Your task to perform on an android device: check google app version Image 0: 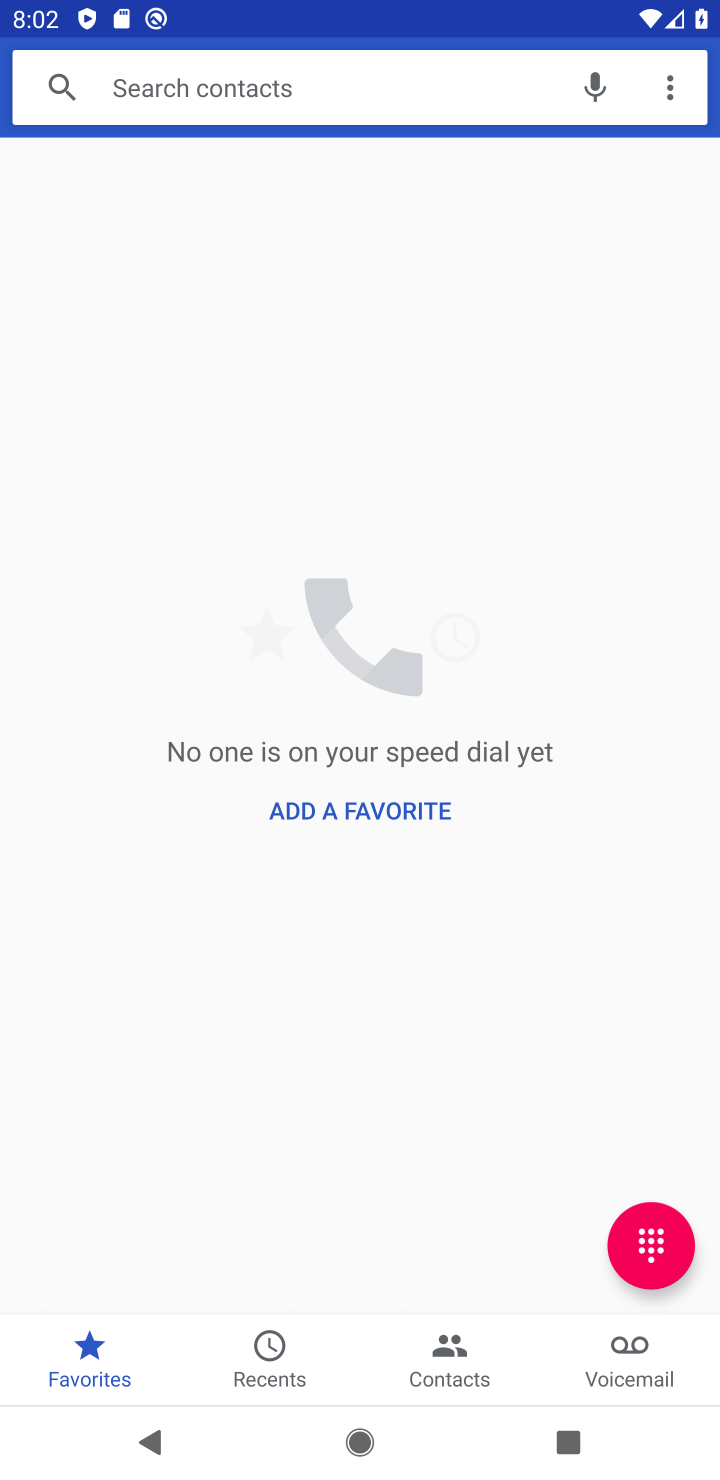
Step 0: press home button
Your task to perform on an android device: check google app version Image 1: 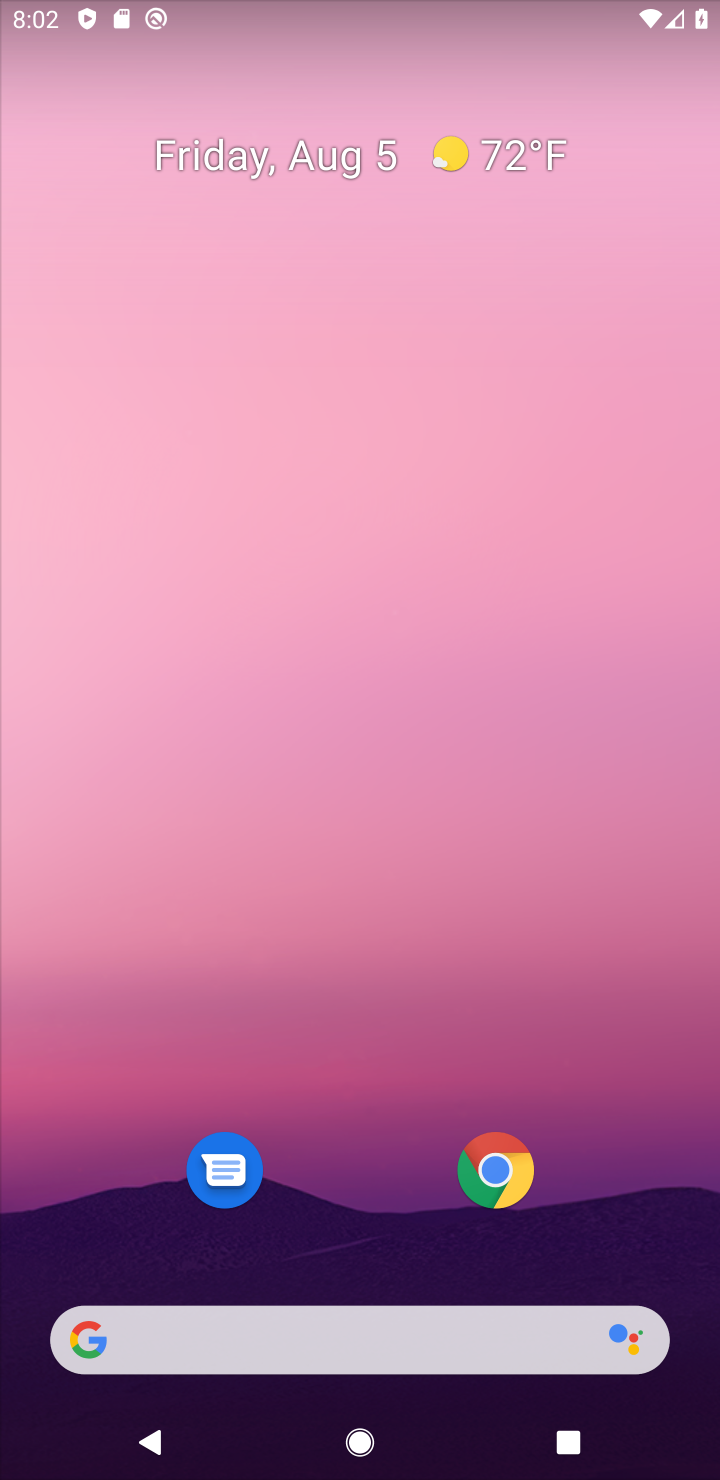
Step 1: click (501, 1170)
Your task to perform on an android device: check google app version Image 2: 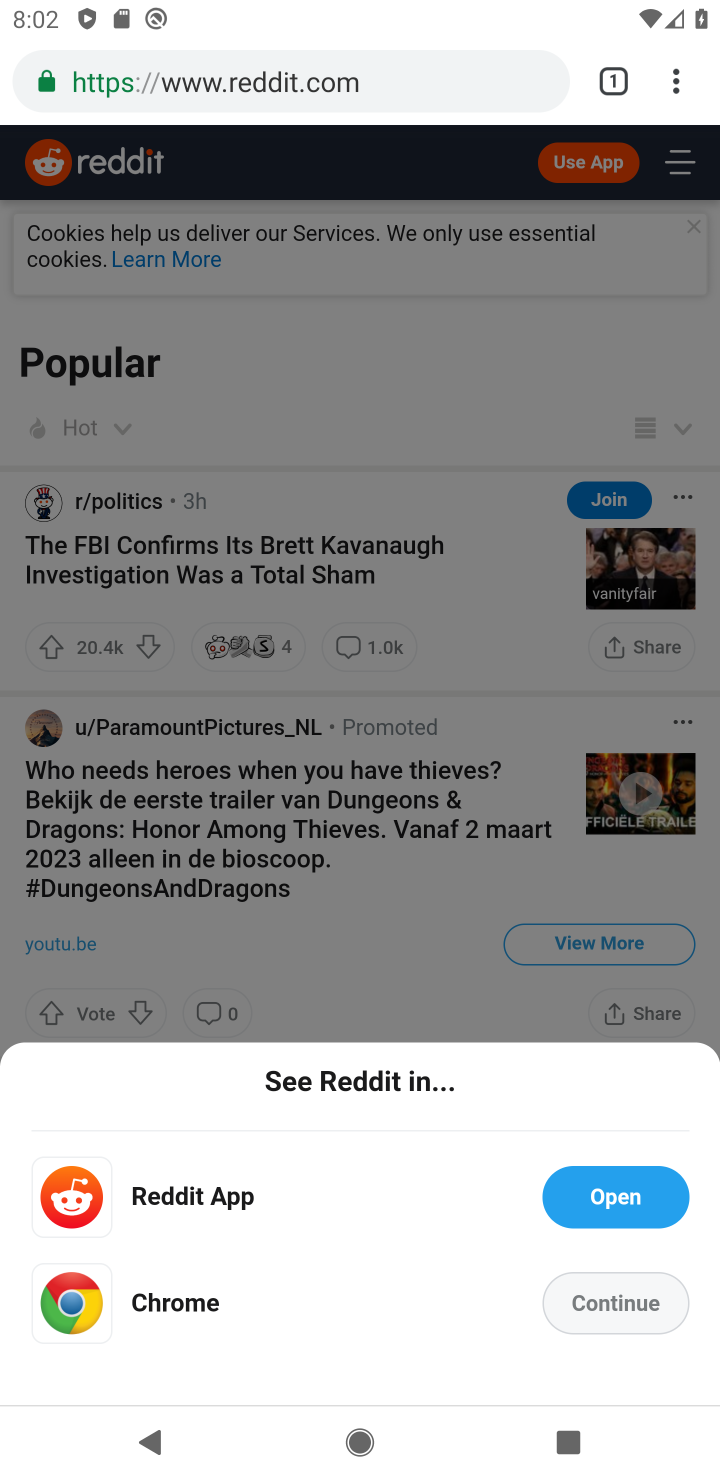
Step 2: click (678, 90)
Your task to perform on an android device: check google app version Image 3: 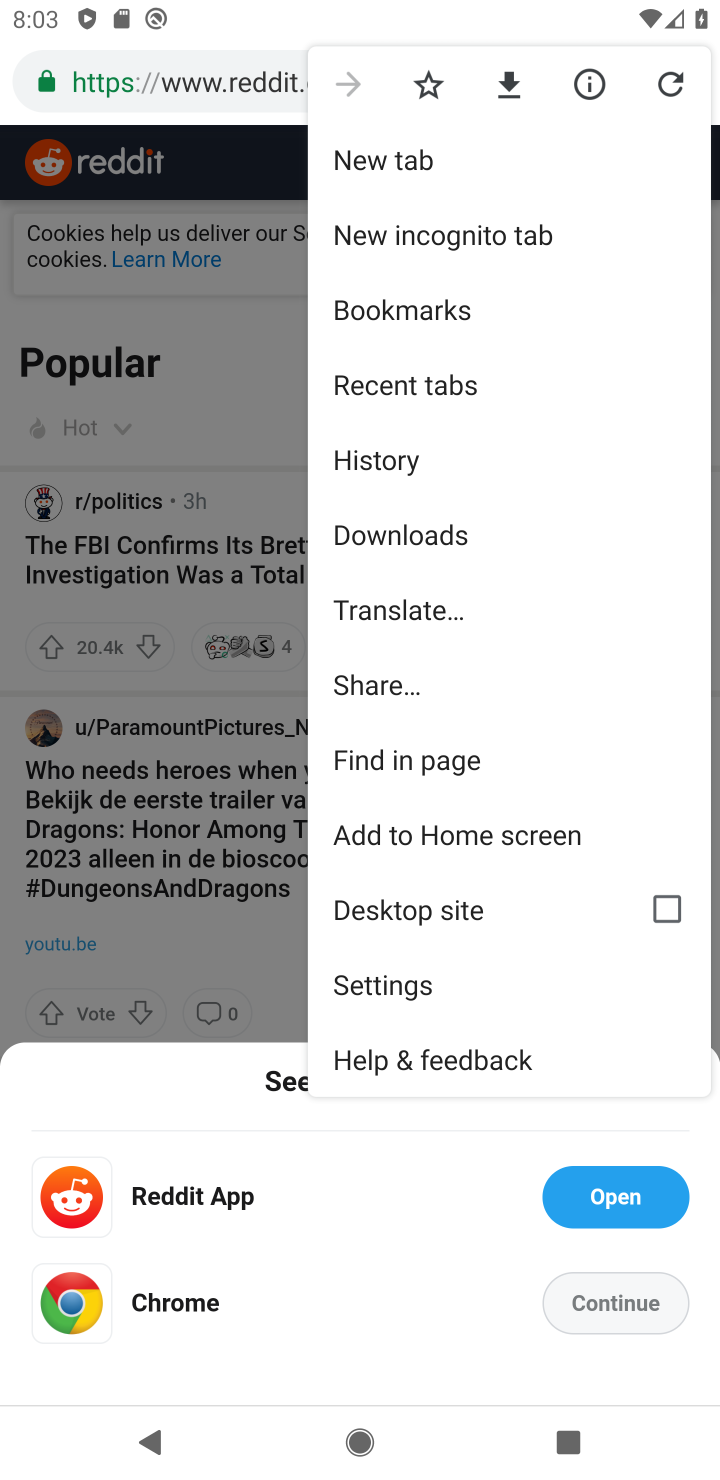
Step 3: click (384, 998)
Your task to perform on an android device: check google app version Image 4: 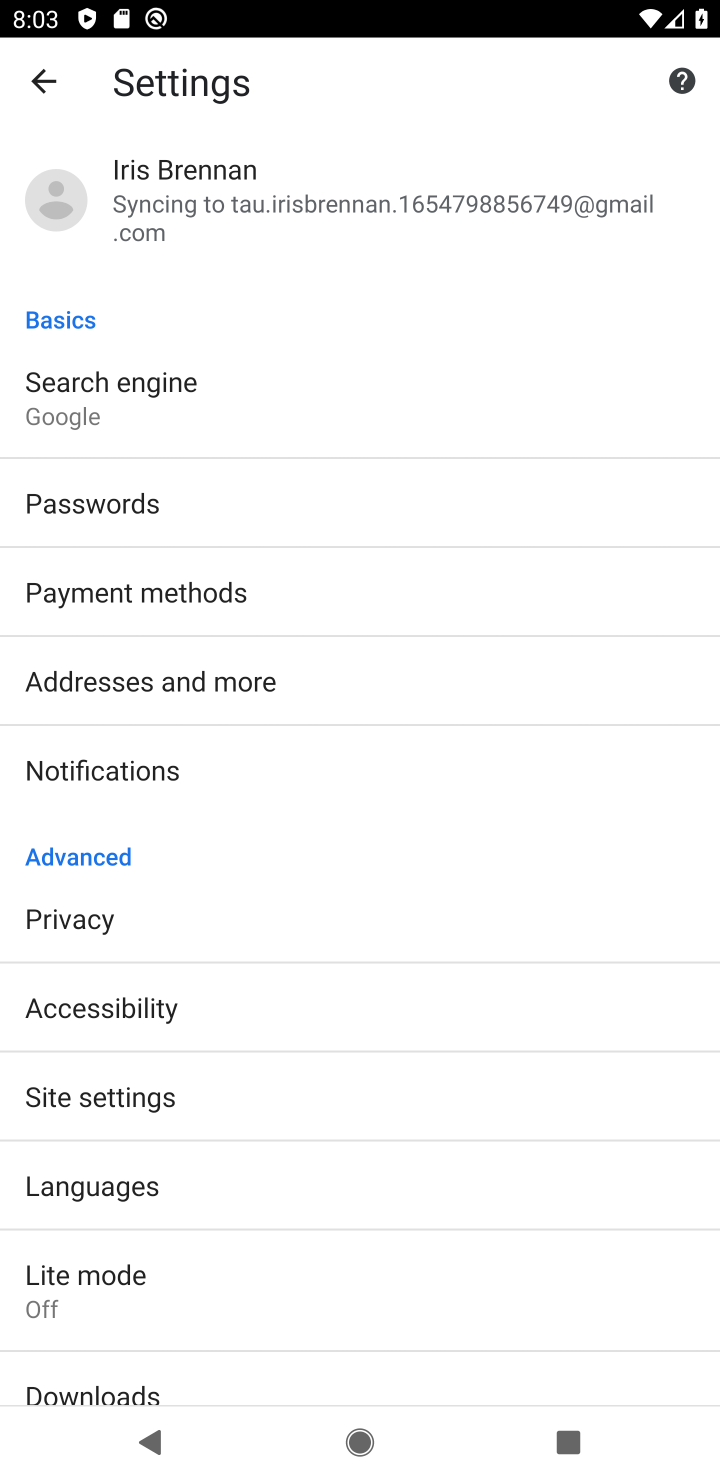
Step 4: drag from (421, 1348) to (365, 433)
Your task to perform on an android device: check google app version Image 5: 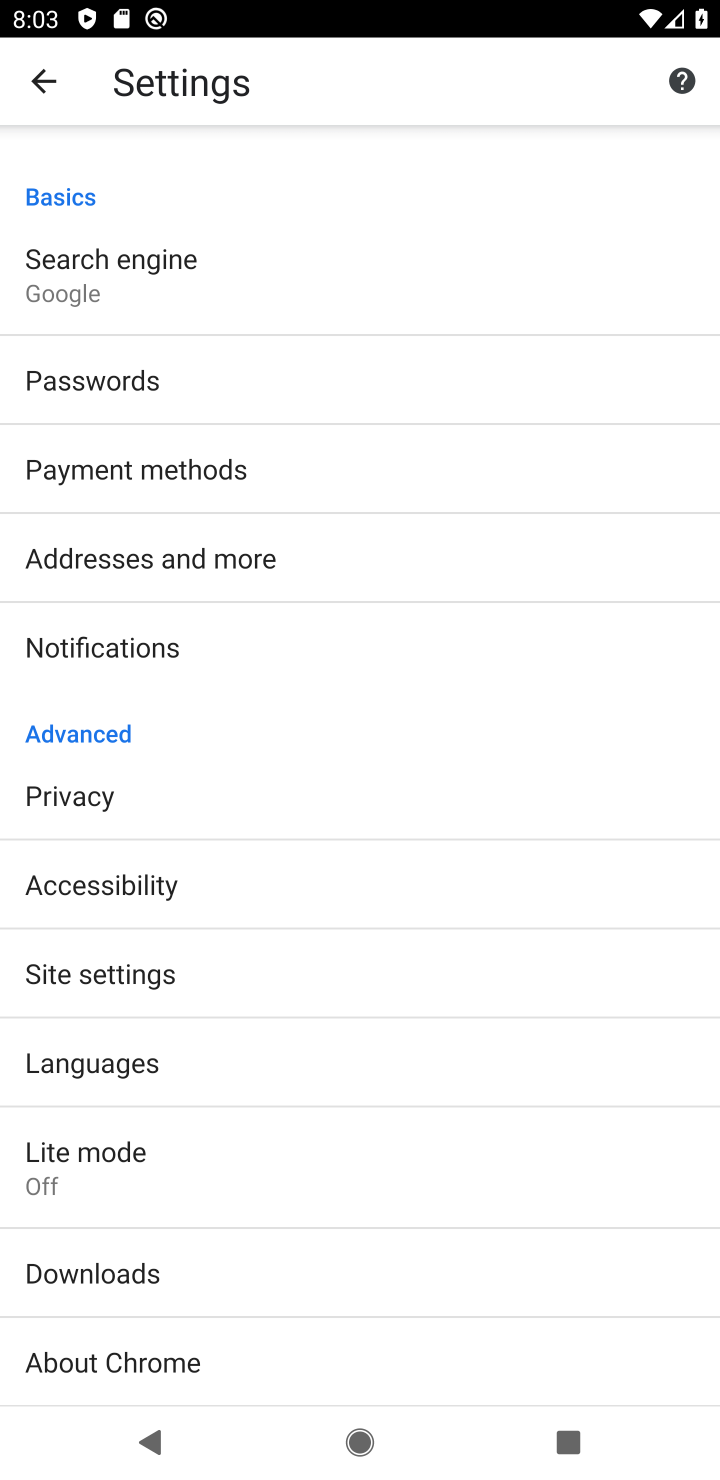
Step 5: click (120, 1348)
Your task to perform on an android device: check google app version Image 6: 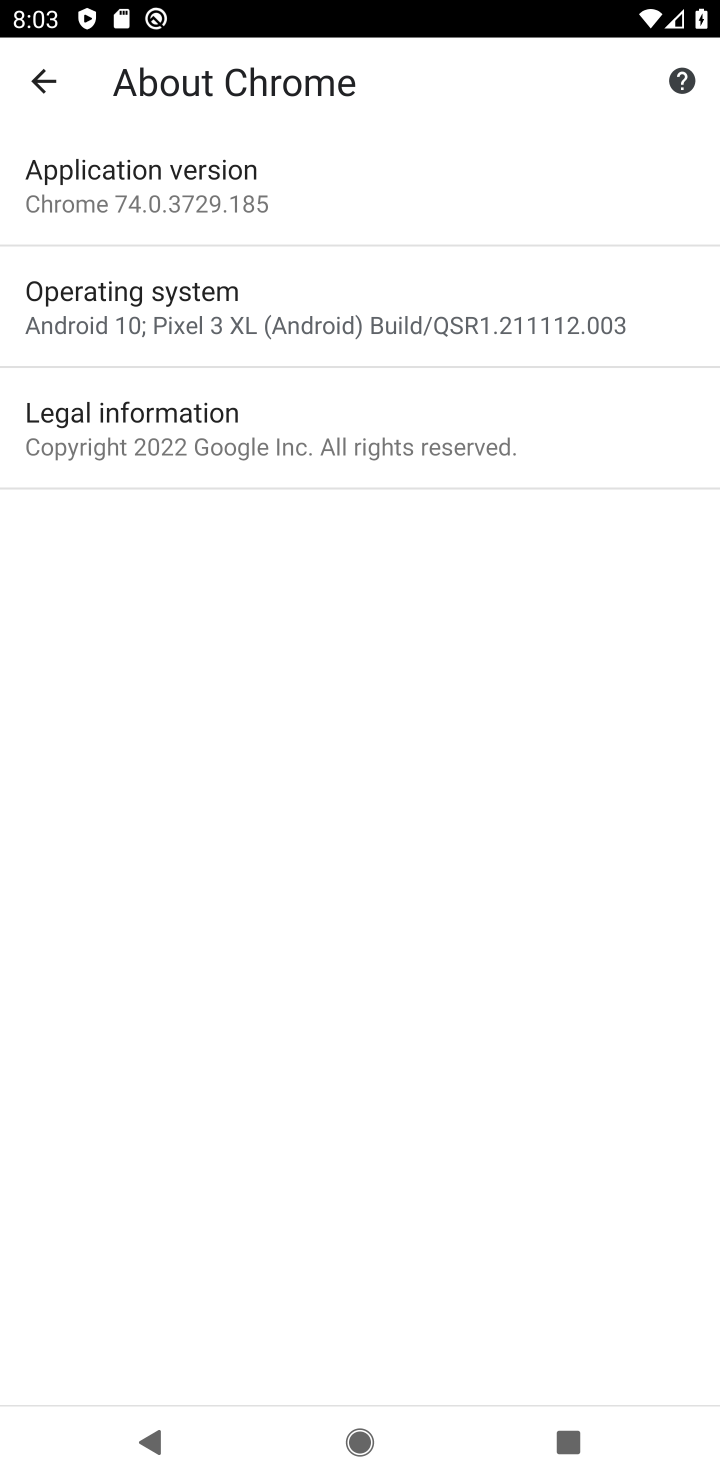
Step 6: task complete